Your task to perform on an android device: read, delete, or share a saved page in the chrome app Image 0: 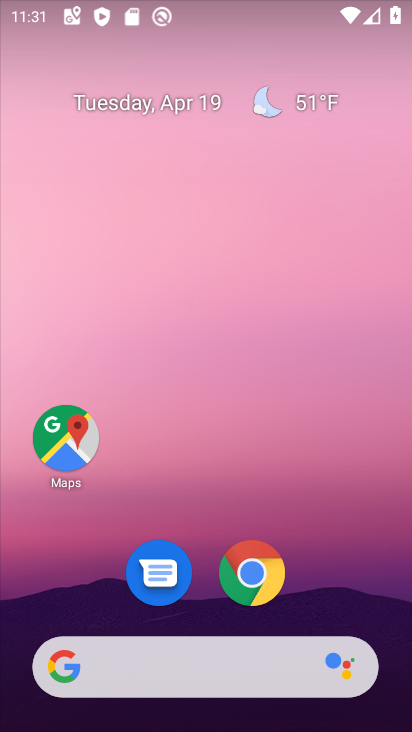
Step 0: click (256, 587)
Your task to perform on an android device: read, delete, or share a saved page in the chrome app Image 1: 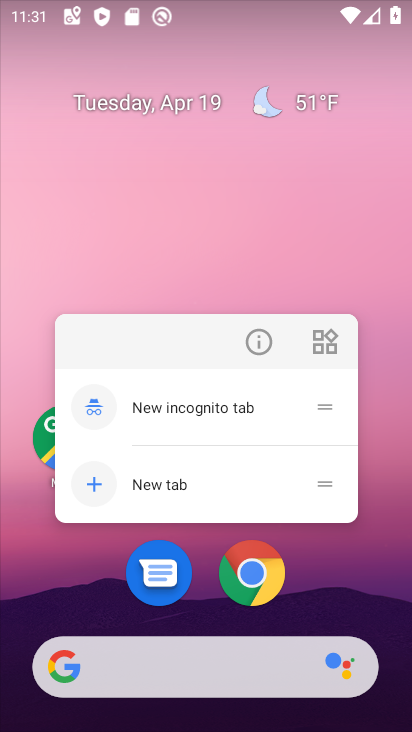
Step 1: click (260, 589)
Your task to perform on an android device: read, delete, or share a saved page in the chrome app Image 2: 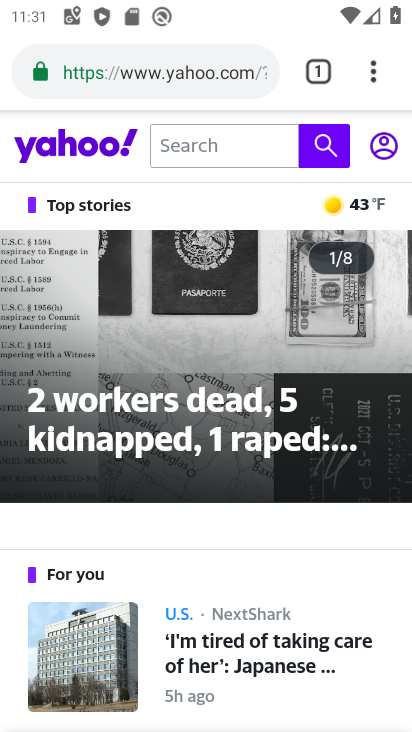
Step 2: task complete